Your task to perform on an android device: open app "DoorDash - Dasher" Image 0: 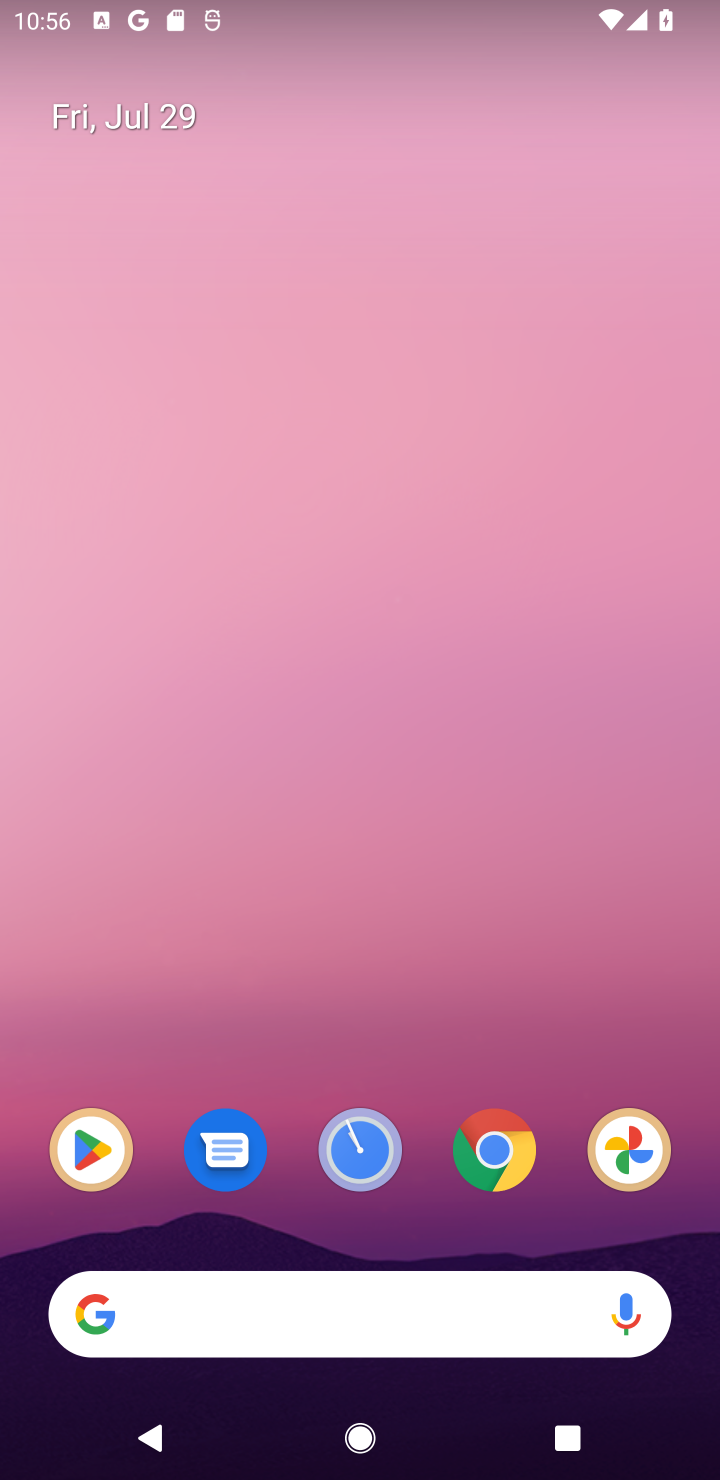
Step 0: click (81, 1158)
Your task to perform on an android device: open app "DoorDash - Dasher" Image 1: 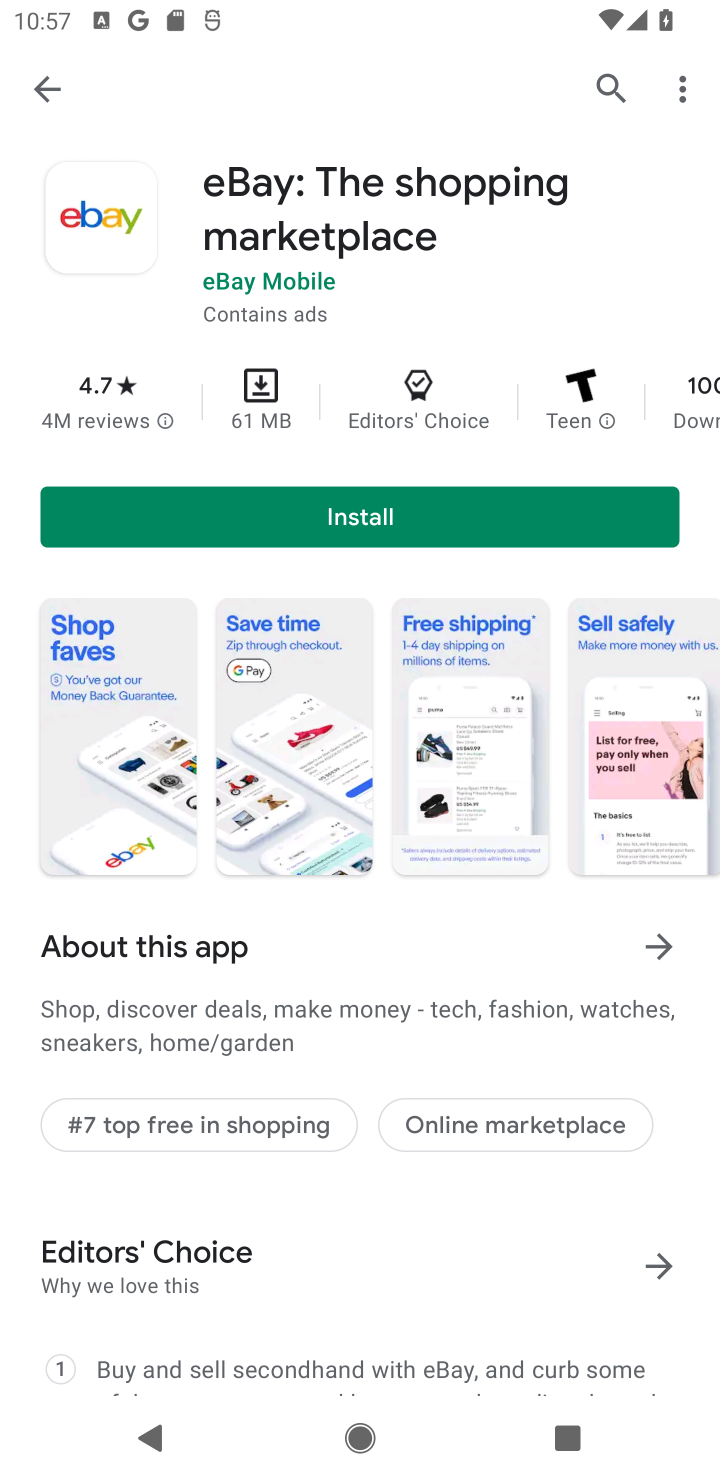
Step 1: click (647, 117)
Your task to perform on an android device: open app "DoorDash - Dasher" Image 2: 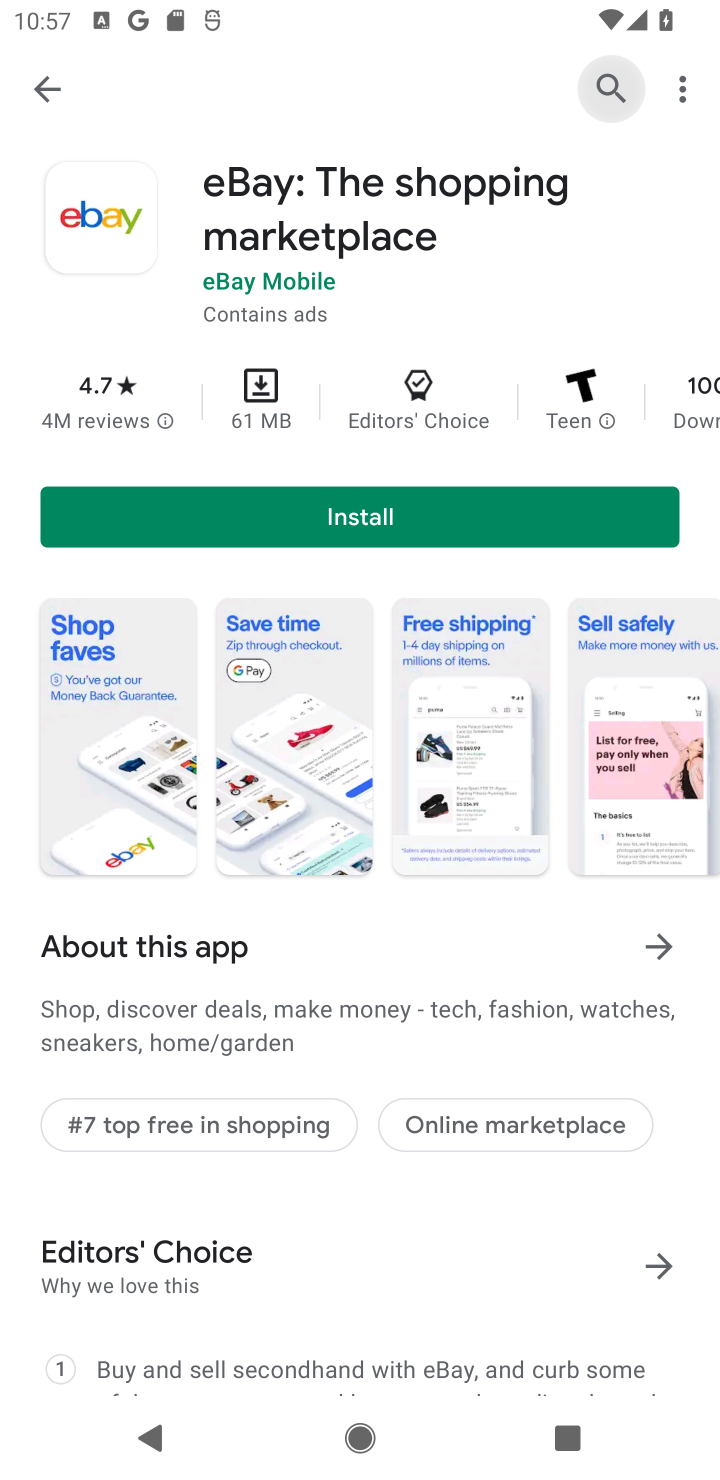
Step 2: click (604, 89)
Your task to perform on an android device: open app "DoorDash - Dasher" Image 3: 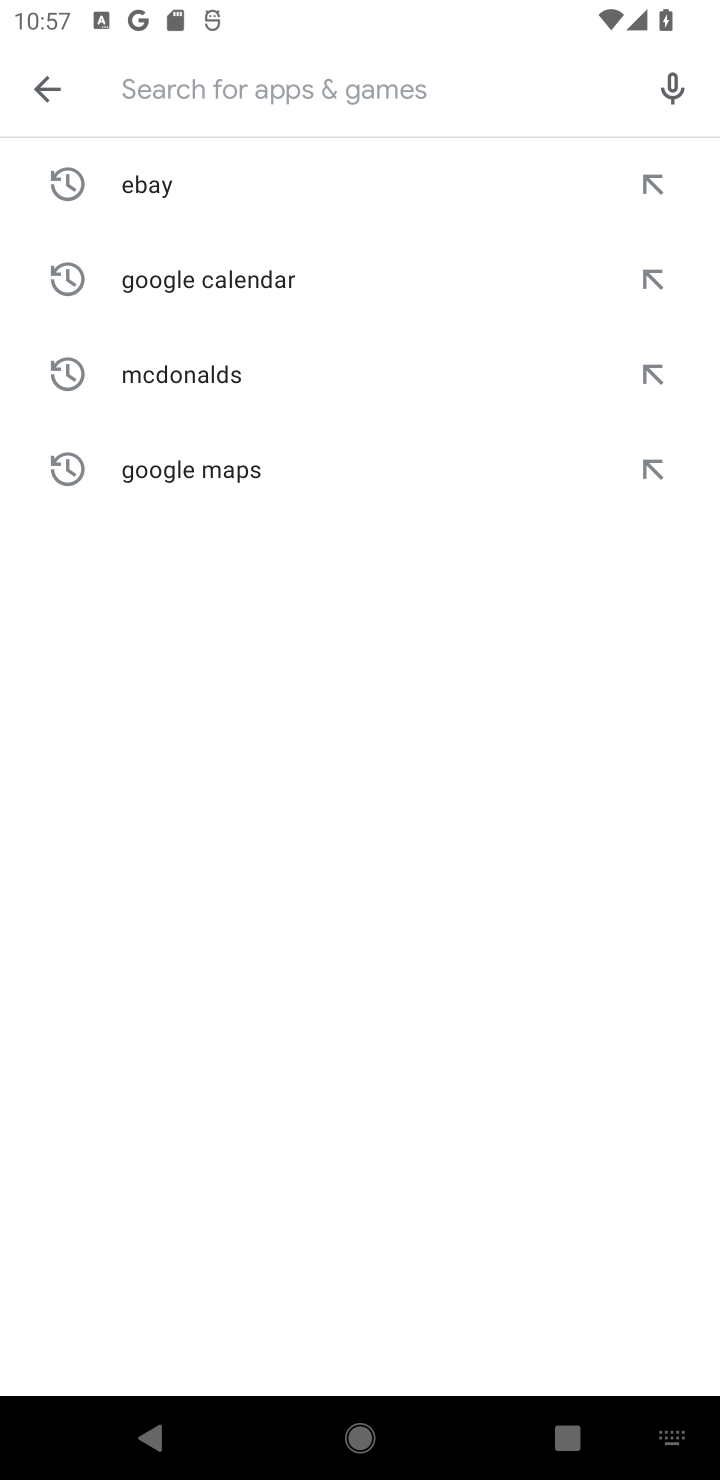
Step 3: click (330, 81)
Your task to perform on an android device: open app "DoorDash - Dasher" Image 4: 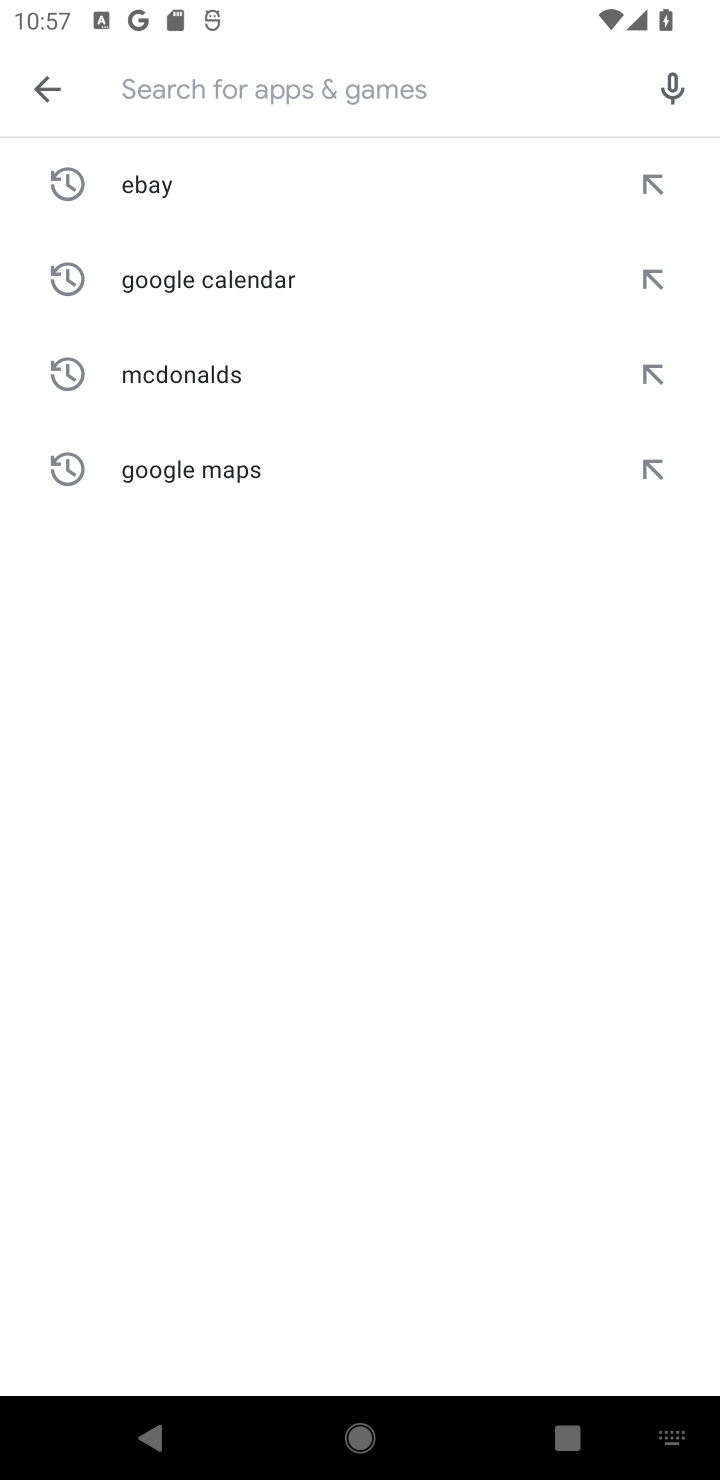
Step 4: type "door dash"
Your task to perform on an android device: open app "DoorDash - Dasher" Image 5: 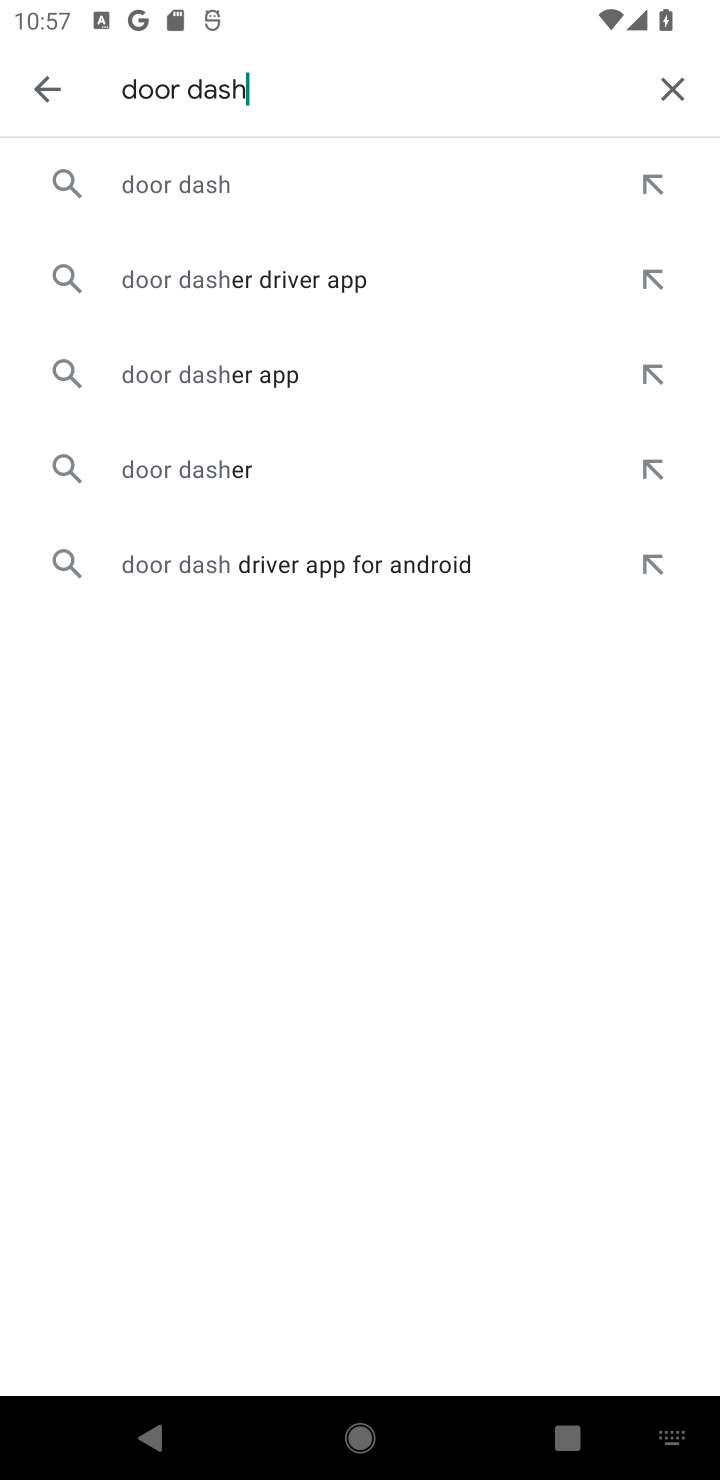
Step 5: click (324, 161)
Your task to perform on an android device: open app "DoorDash - Dasher" Image 6: 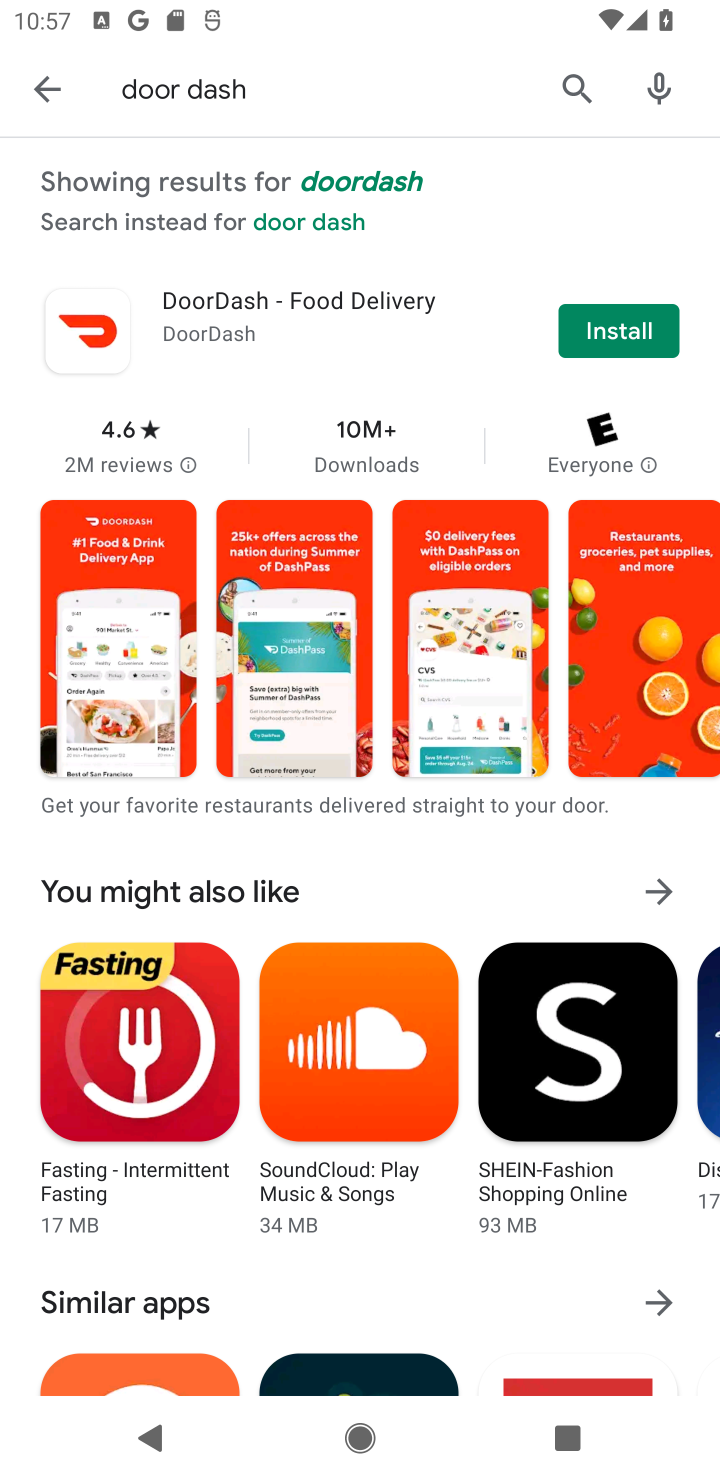
Step 6: click (112, 1372)
Your task to perform on an android device: open app "DoorDash - Dasher" Image 7: 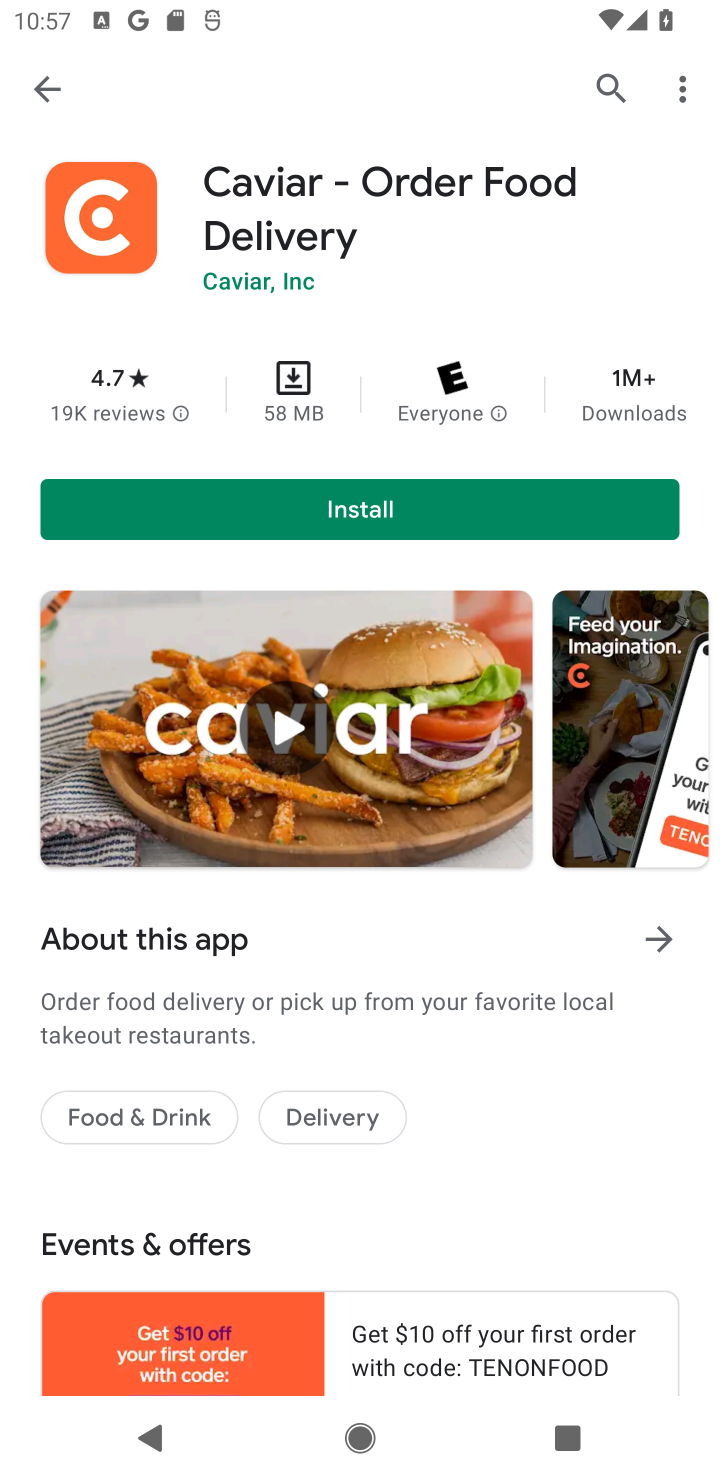
Step 7: click (31, 61)
Your task to perform on an android device: open app "DoorDash - Dasher" Image 8: 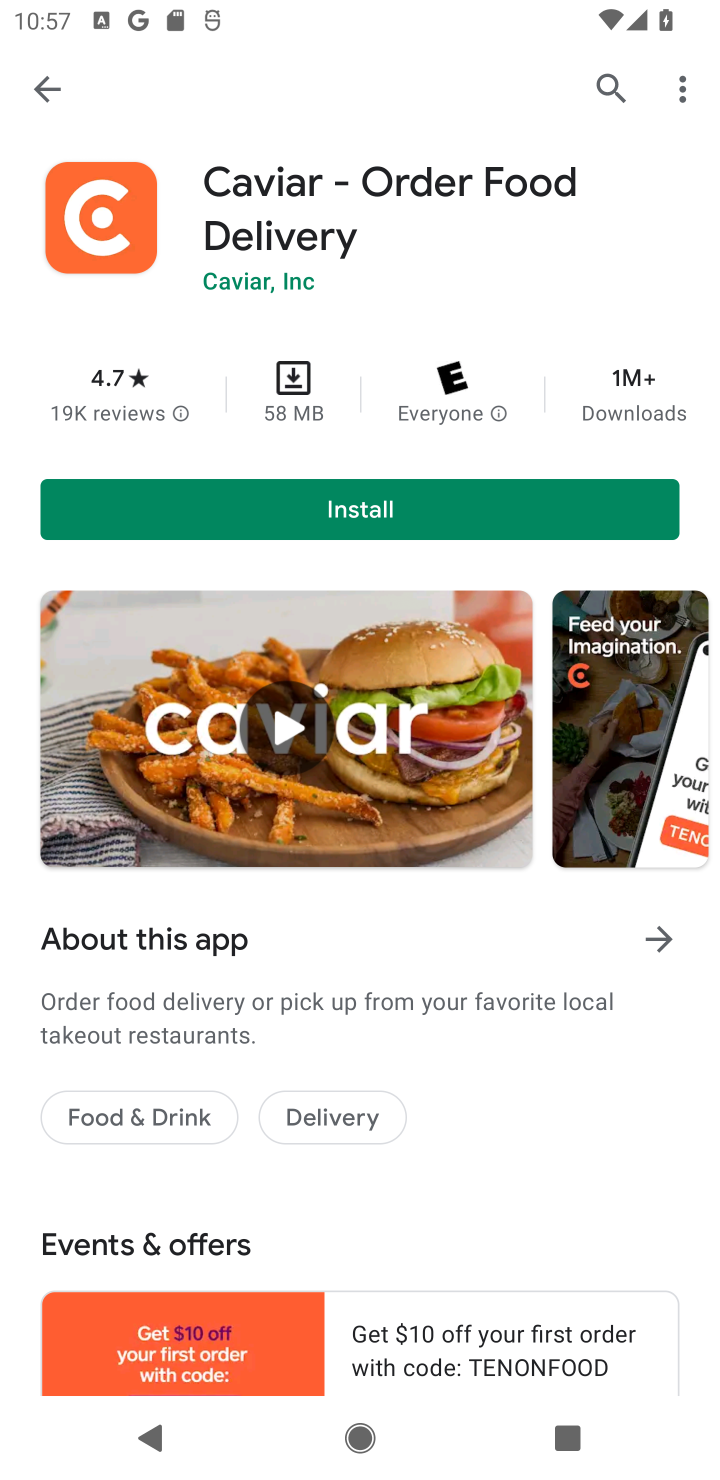
Step 8: click (49, 83)
Your task to perform on an android device: open app "DoorDash - Dasher" Image 9: 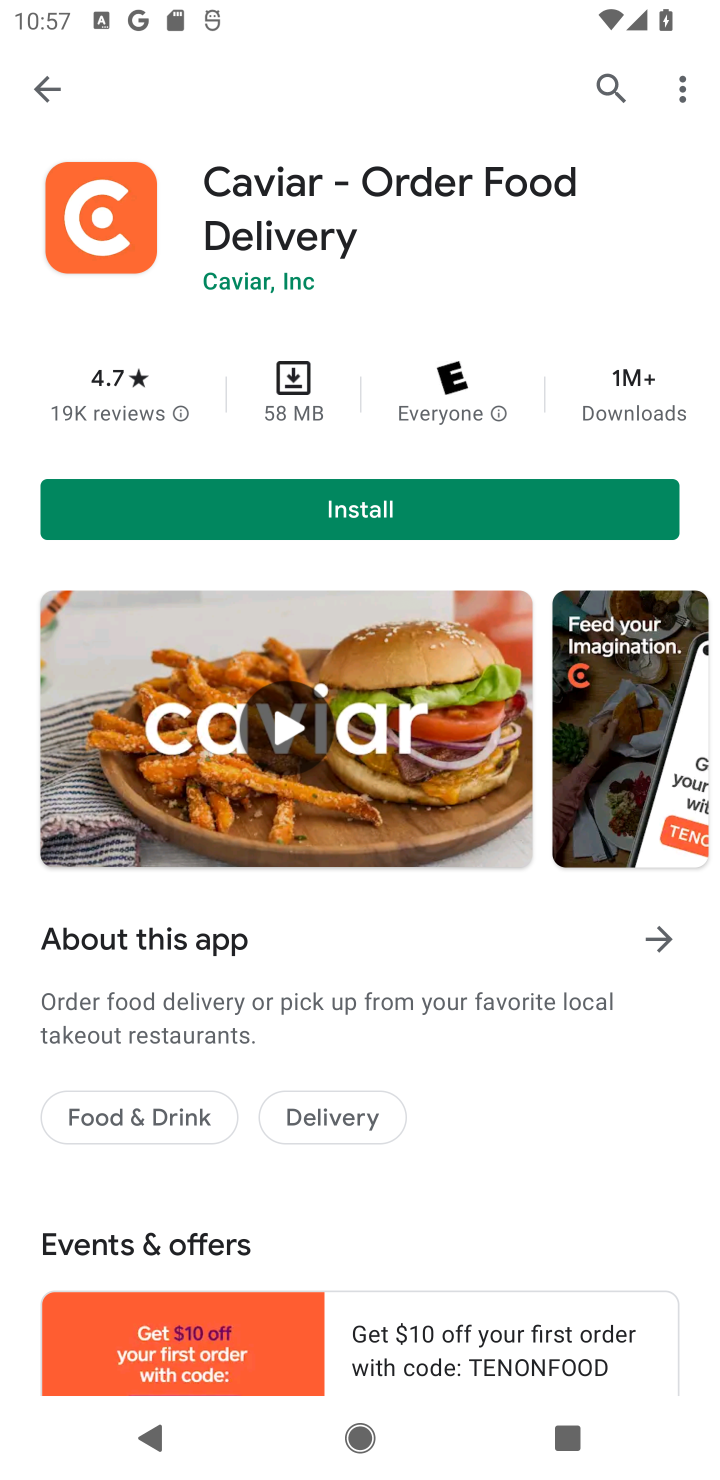
Step 9: click (51, 78)
Your task to perform on an android device: open app "DoorDash - Dasher" Image 10: 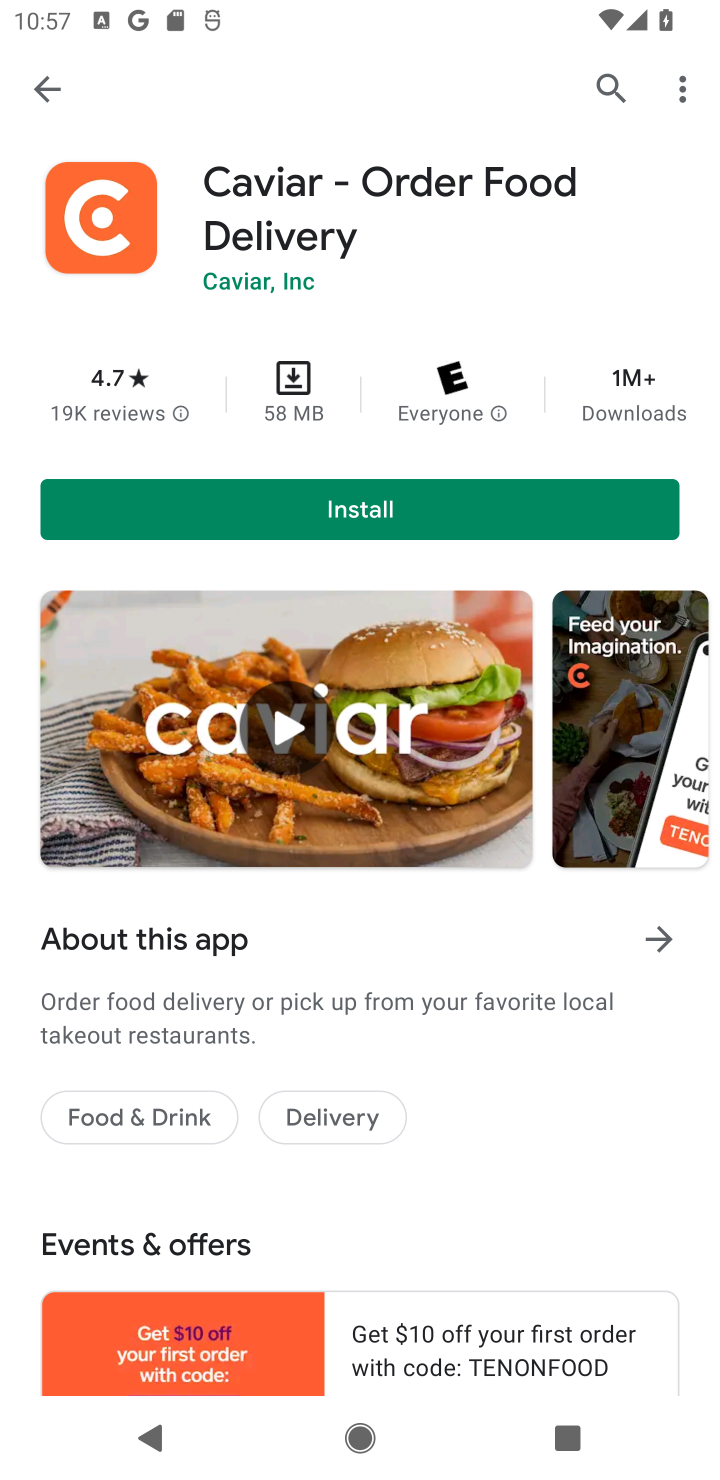
Step 10: drag from (374, 887) to (492, 200)
Your task to perform on an android device: open app "DoorDash - Dasher" Image 11: 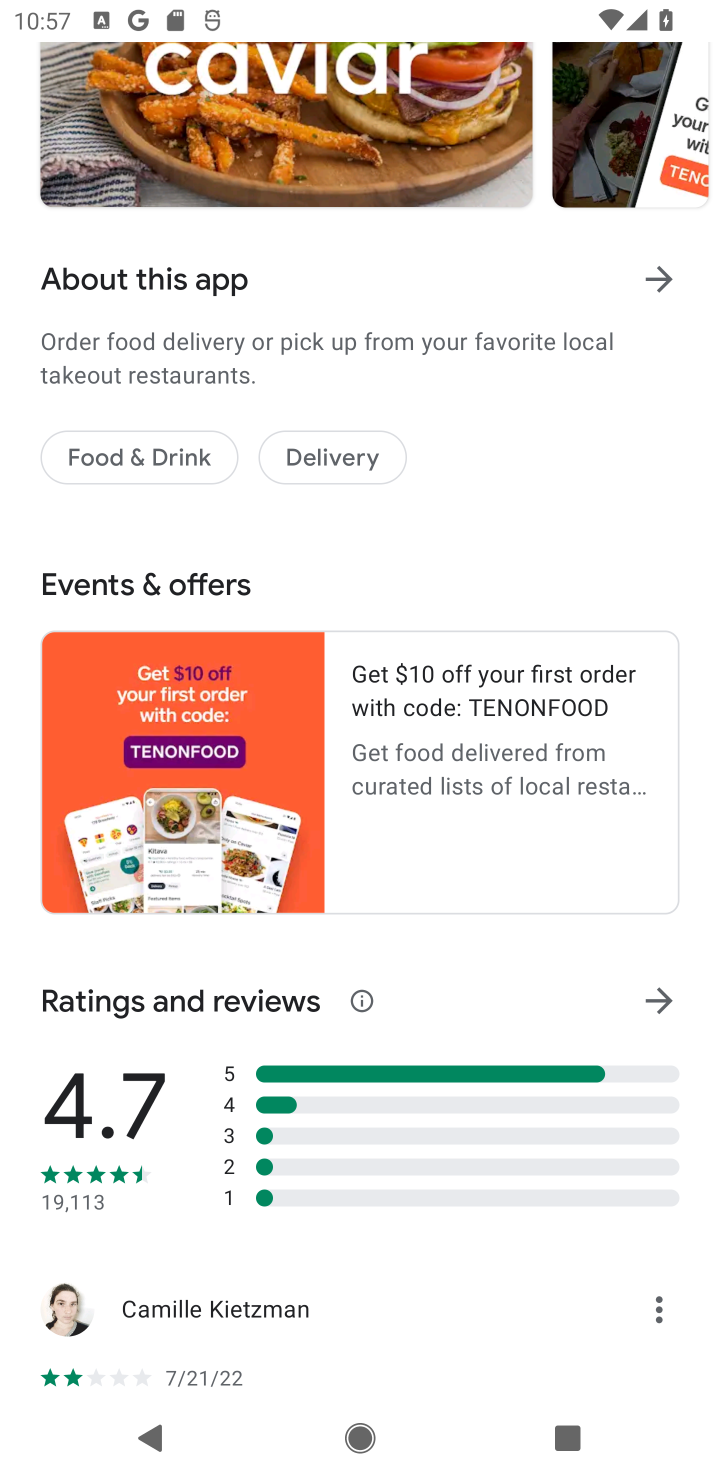
Step 11: press back button
Your task to perform on an android device: open app "DoorDash - Dasher" Image 12: 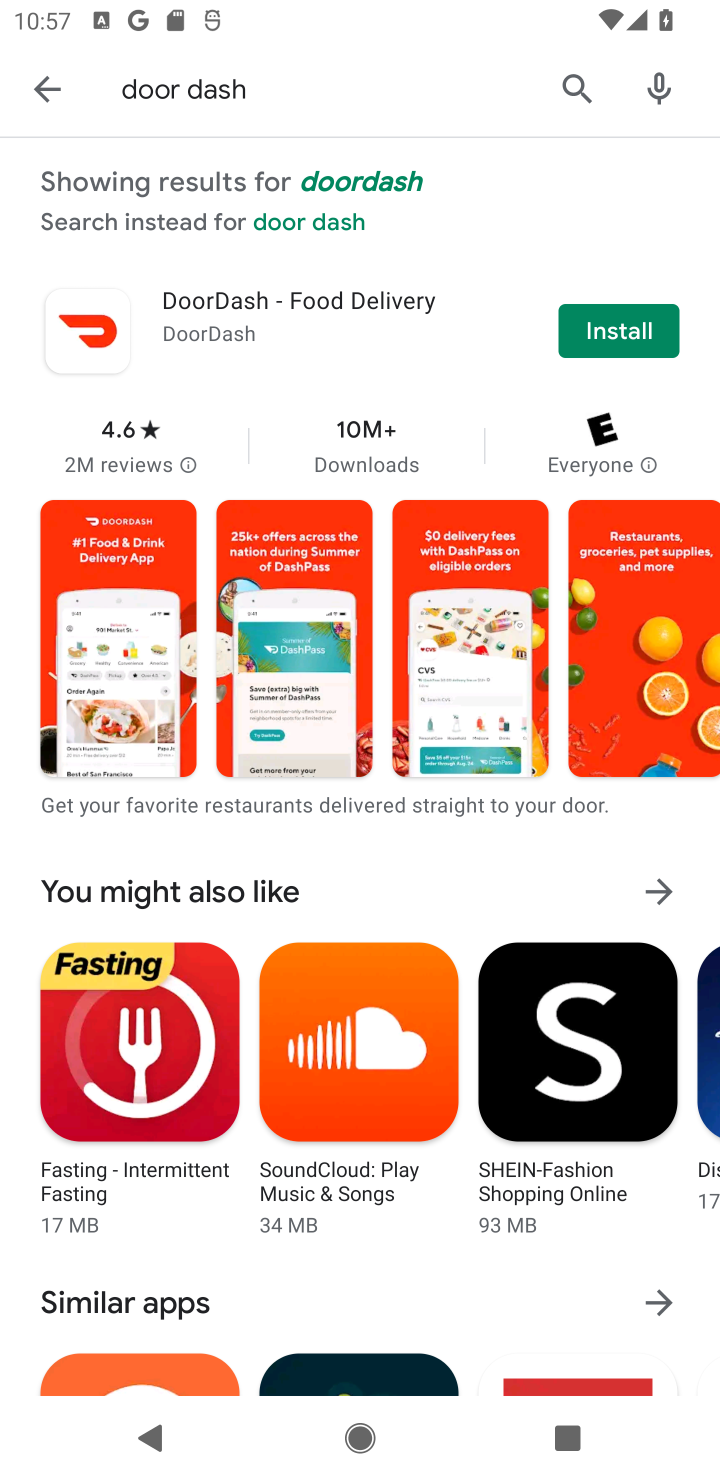
Step 12: drag from (322, 1155) to (522, 347)
Your task to perform on an android device: open app "DoorDash - Dasher" Image 13: 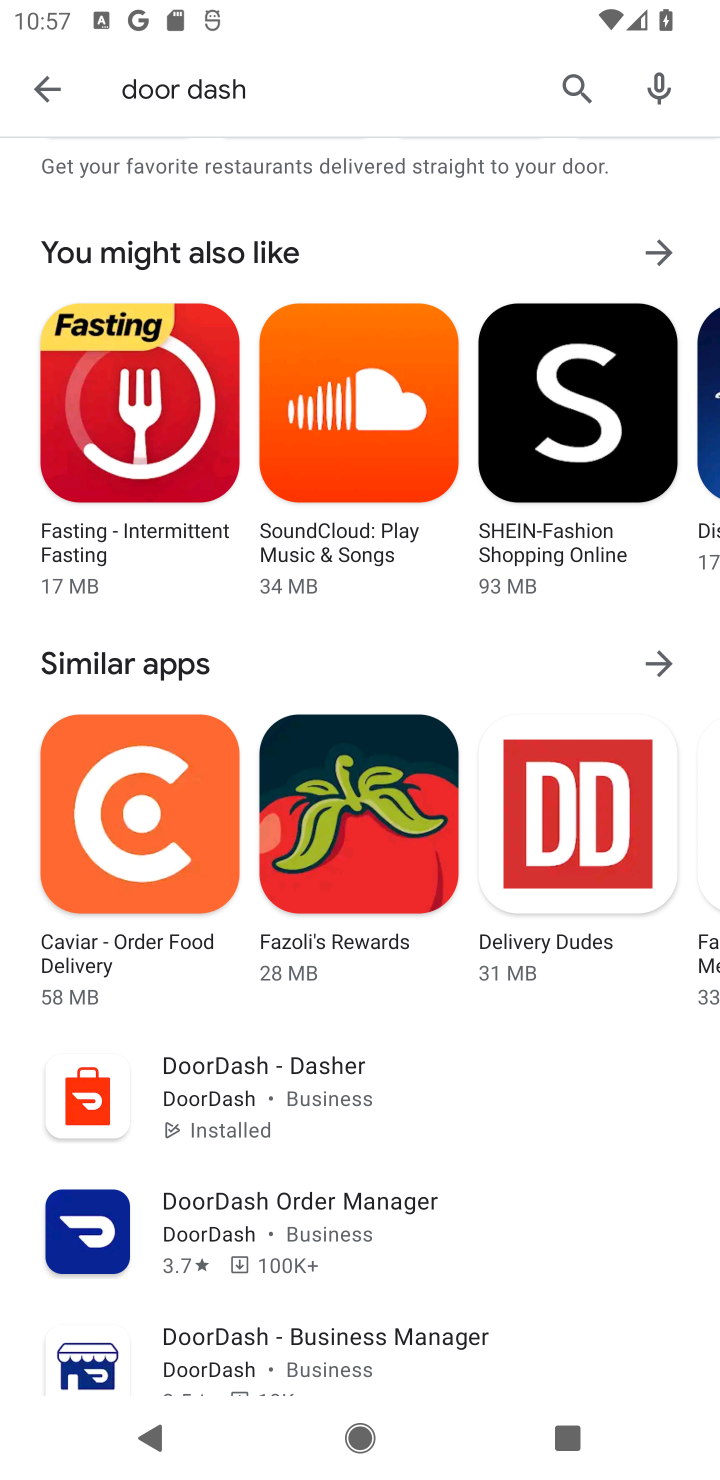
Step 13: drag from (404, 454) to (451, 285)
Your task to perform on an android device: open app "DoorDash - Dasher" Image 14: 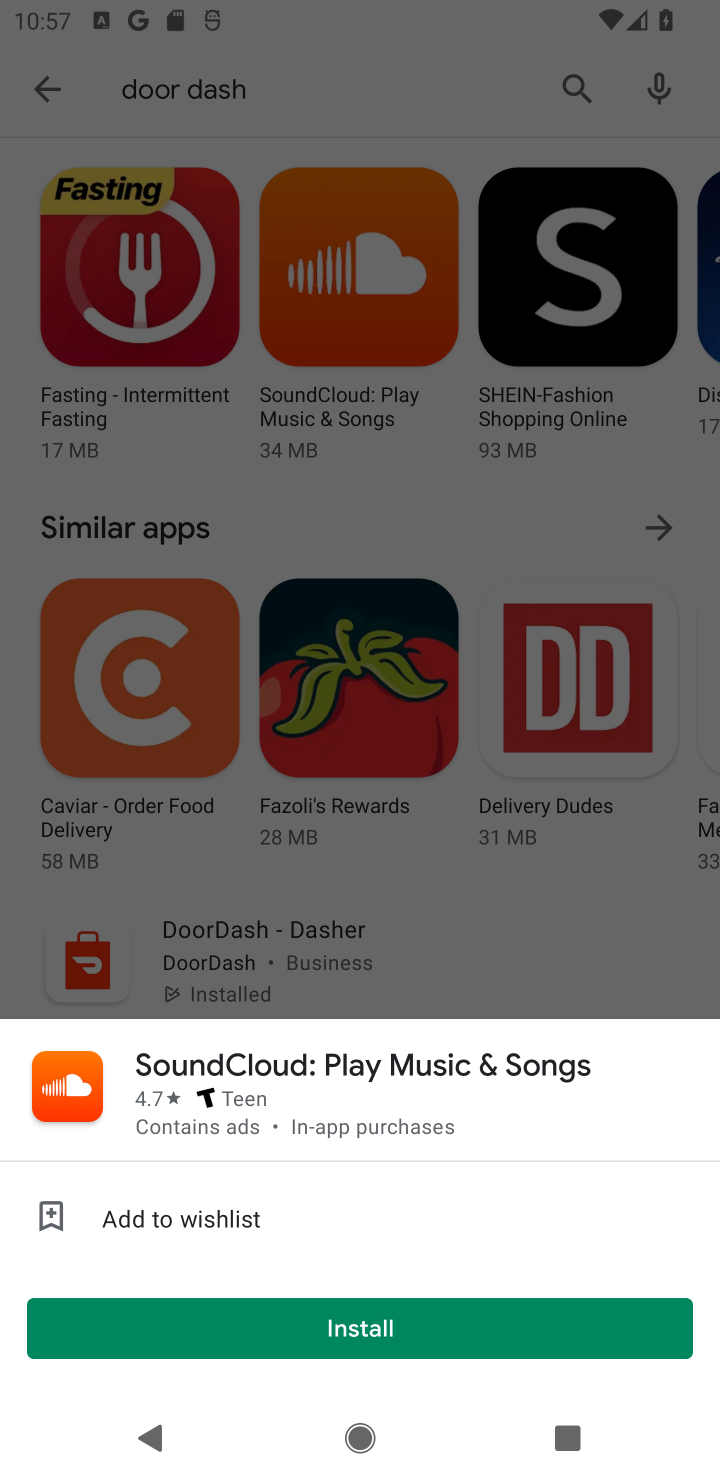
Step 14: click (436, 748)
Your task to perform on an android device: open app "DoorDash - Dasher" Image 15: 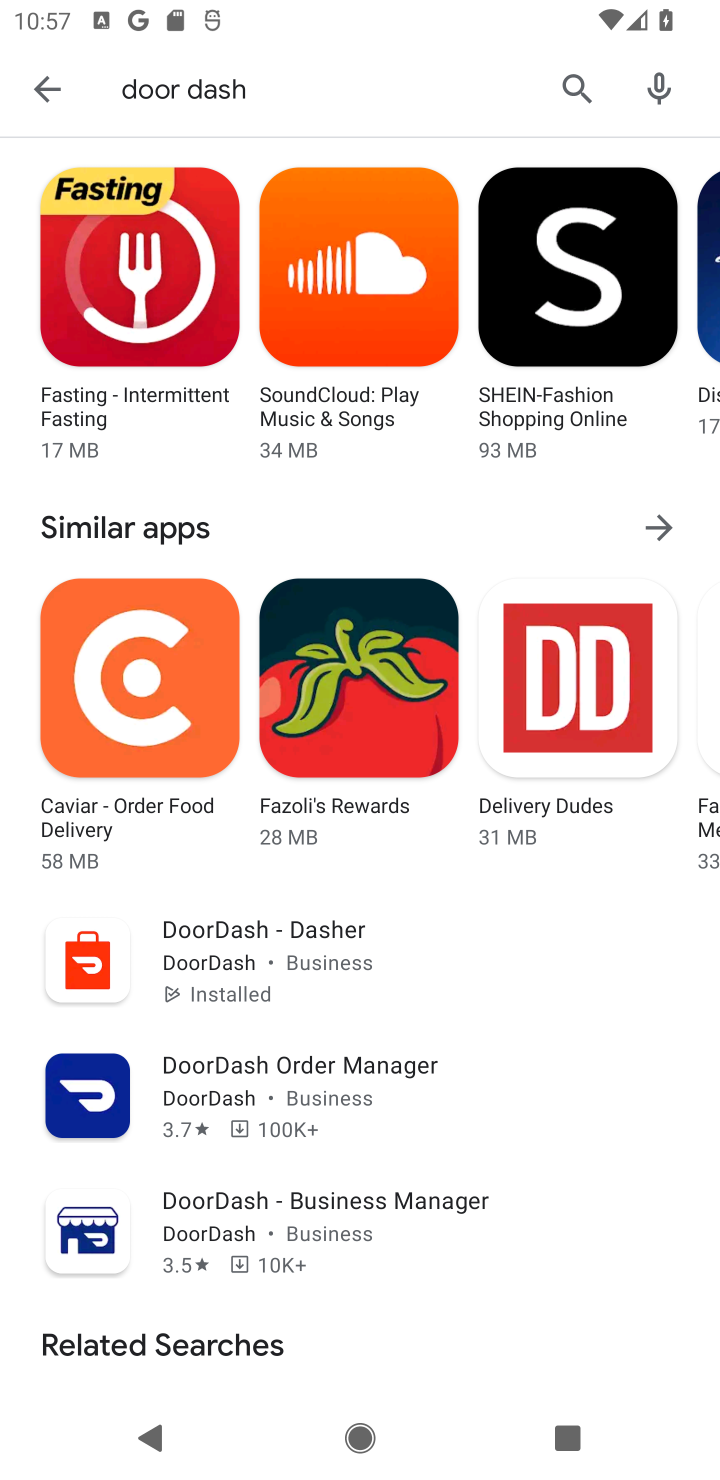
Step 15: click (226, 956)
Your task to perform on an android device: open app "DoorDash - Dasher" Image 16: 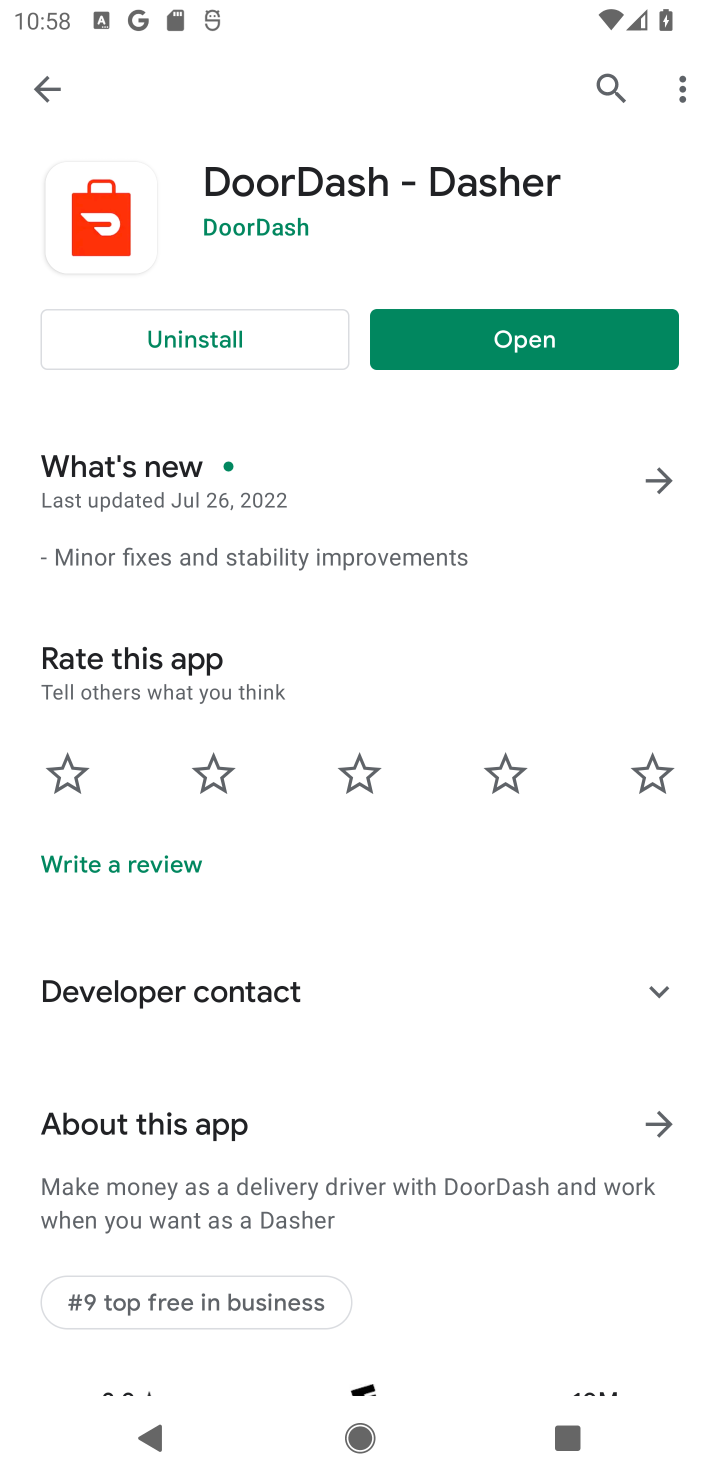
Step 16: click (563, 336)
Your task to perform on an android device: open app "DoorDash - Dasher" Image 17: 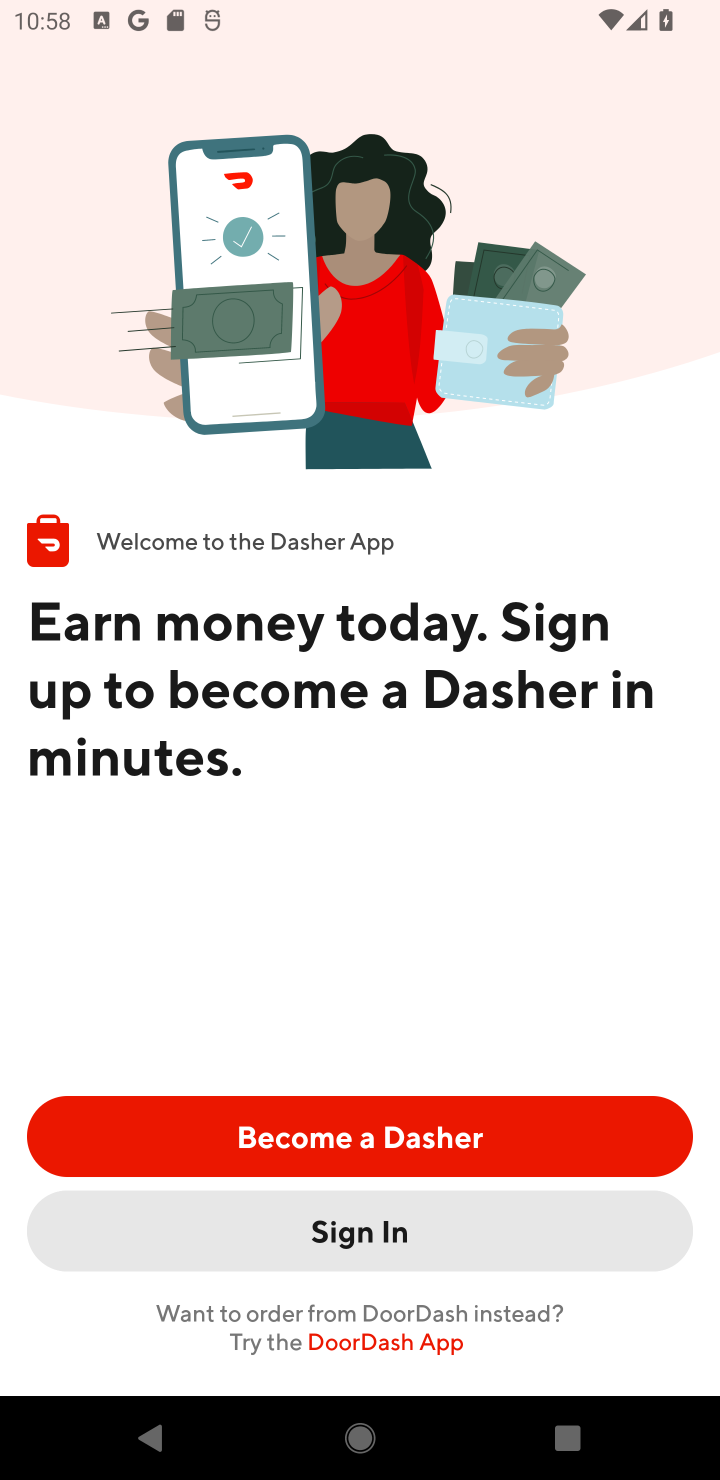
Step 17: task complete